Your task to perform on an android device: empty trash in google photos Image 0: 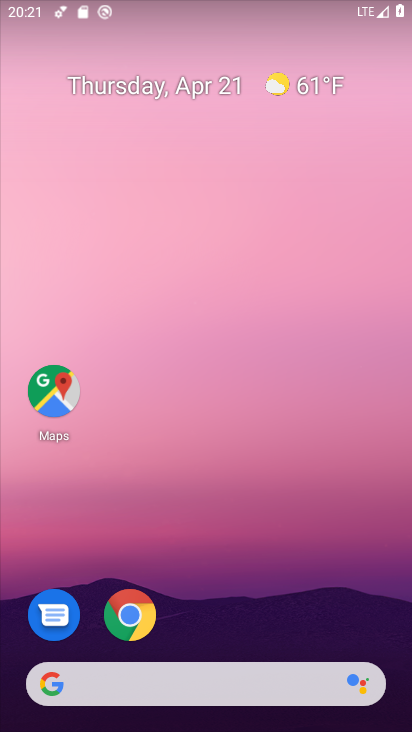
Step 0: drag from (379, 586) to (221, 7)
Your task to perform on an android device: empty trash in google photos Image 1: 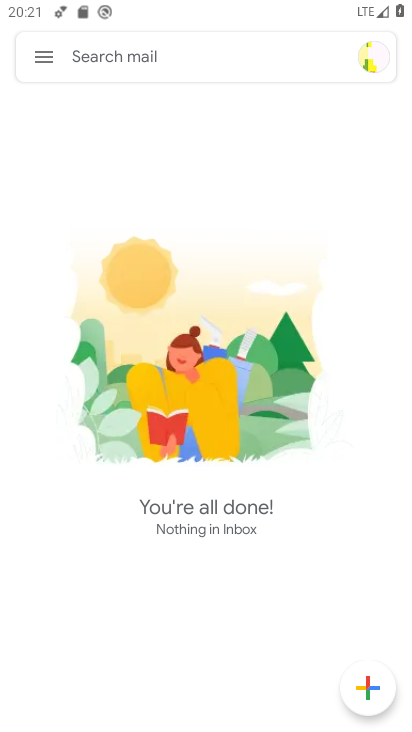
Step 1: click (35, 51)
Your task to perform on an android device: empty trash in google photos Image 2: 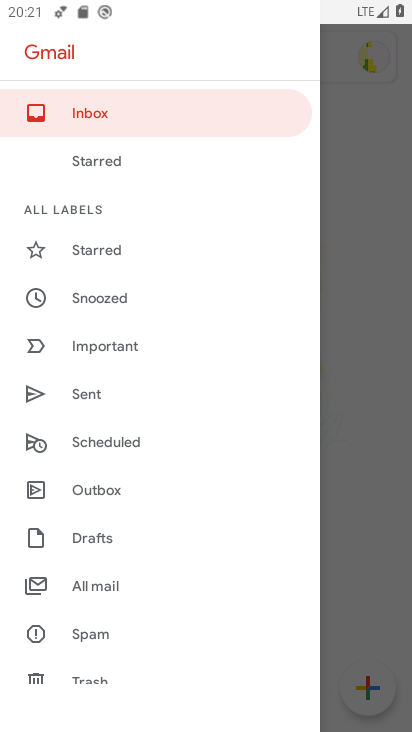
Step 2: press home button
Your task to perform on an android device: empty trash in google photos Image 3: 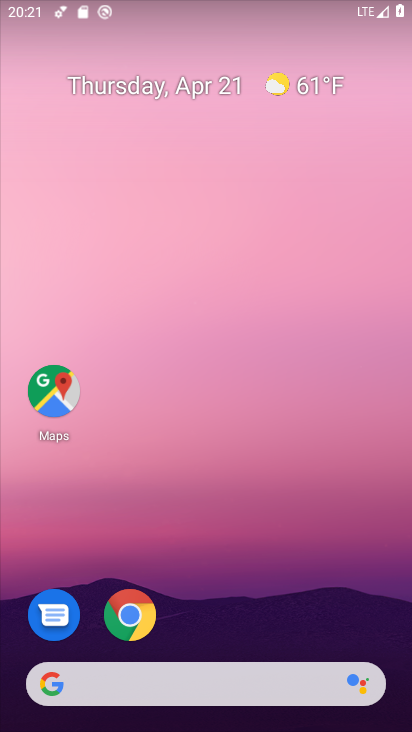
Step 3: drag from (160, 626) to (255, 4)
Your task to perform on an android device: empty trash in google photos Image 4: 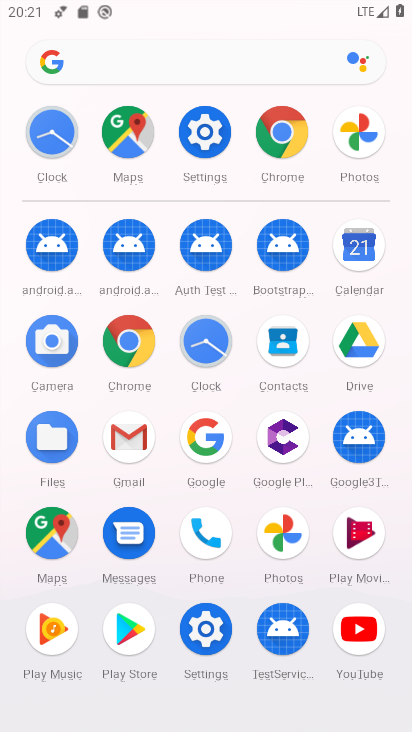
Step 4: click (292, 542)
Your task to perform on an android device: empty trash in google photos Image 5: 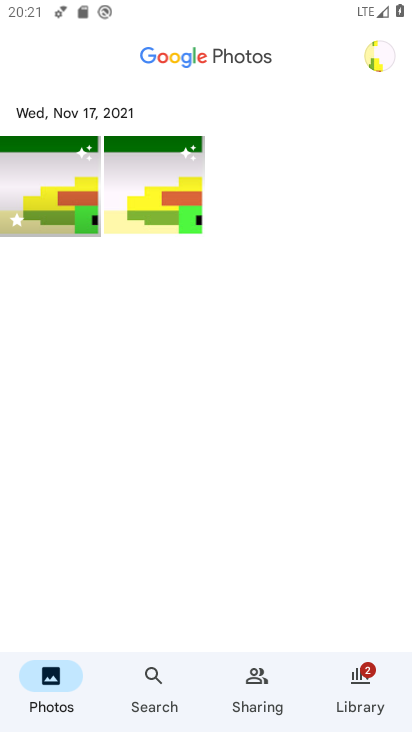
Step 5: click (363, 684)
Your task to perform on an android device: empty trash in google photos Image 6: 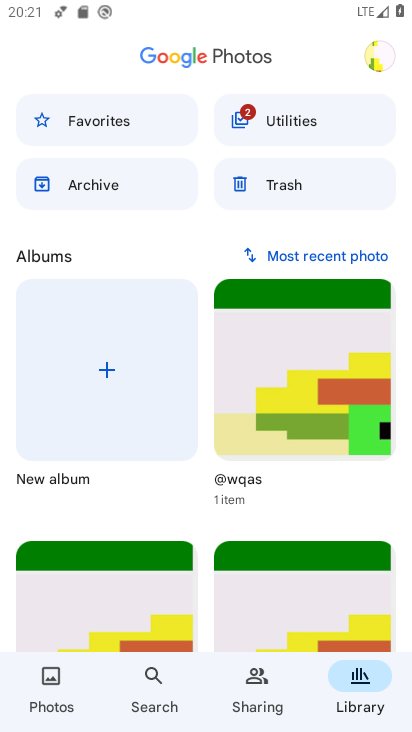
Step 6: click (266, 179)
Your task to perform on an android device: empty trash in google photos Image 7: 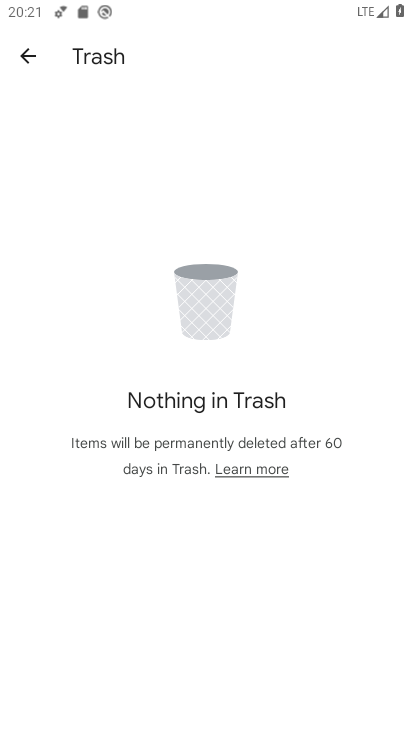
Step 7: task complete